Your task to perform on an android device: manage bookmarks in the chrome app Image 0: 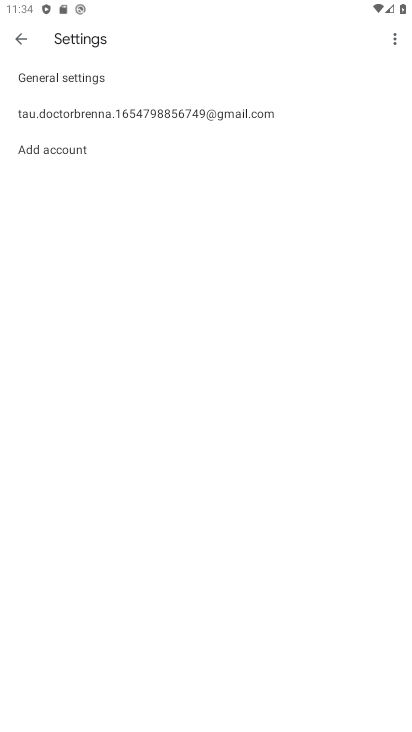
Step 0: press home button
Your task to perform on an android device: manage bookmarks in the chrome app Image 1: 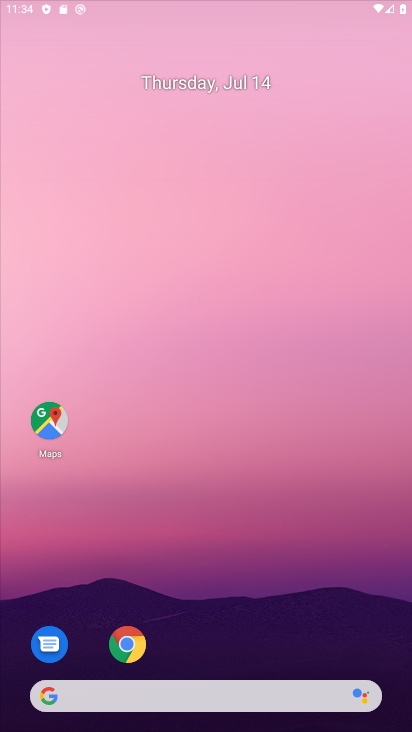
Step 1: drag from (343, 630) to (150, 0)
Your task to perform on an android device: manage bookmarks in the chrome app Image 2: 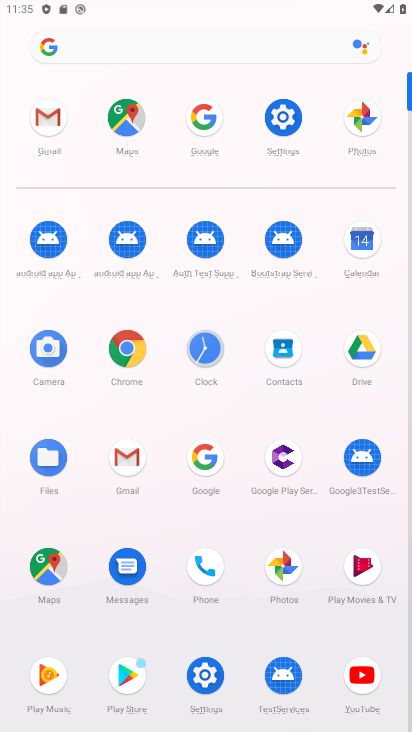
Step 2: click (143, 350)
Your task to perform on an android device: manage bookmarks in the chrome app Image 3: 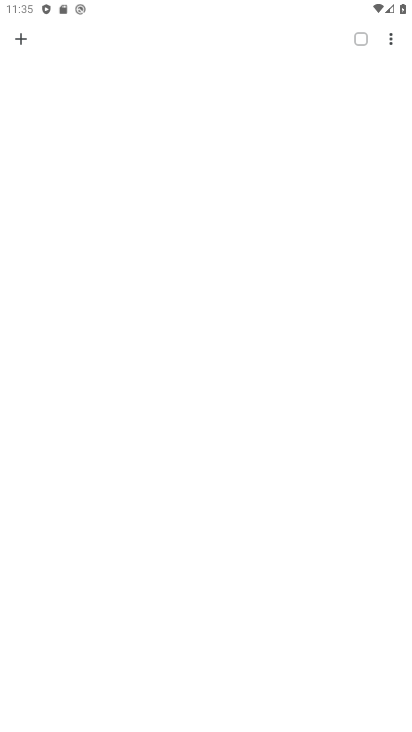
Step 3: task complete